Your task to perform on an android device: Go to Google Image 0: 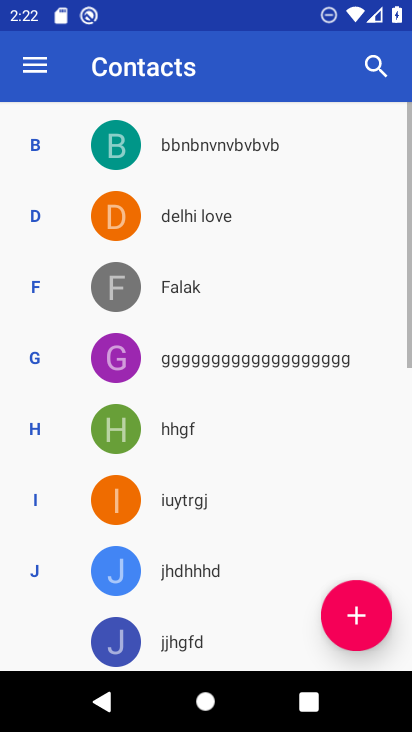
Step 0: press home button
Your task to perform on an android device: Go to Google Image 1: 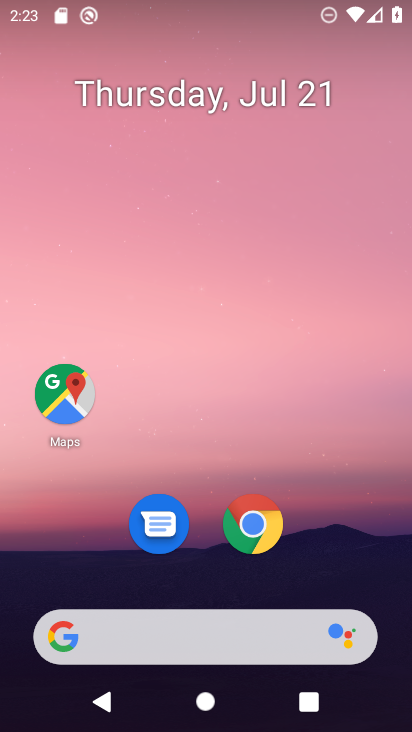
Step 1: drag from (195, 633) to (302, 115)
Your task to perform on an android device: Go to Google Image 2: 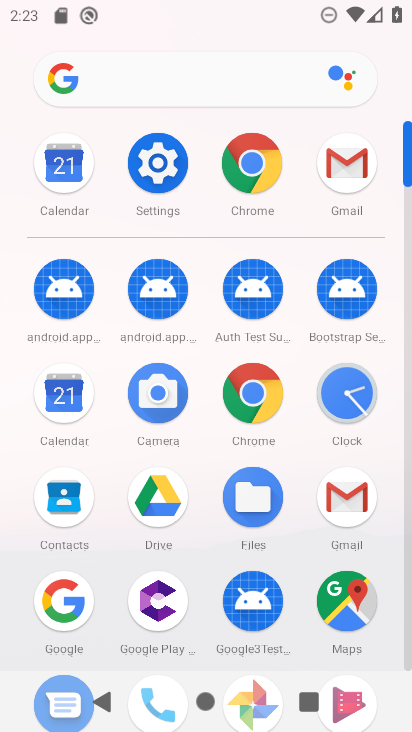
Step 2: click (71, 609)
Your task to perform on an android device: Go to Google Image 3: 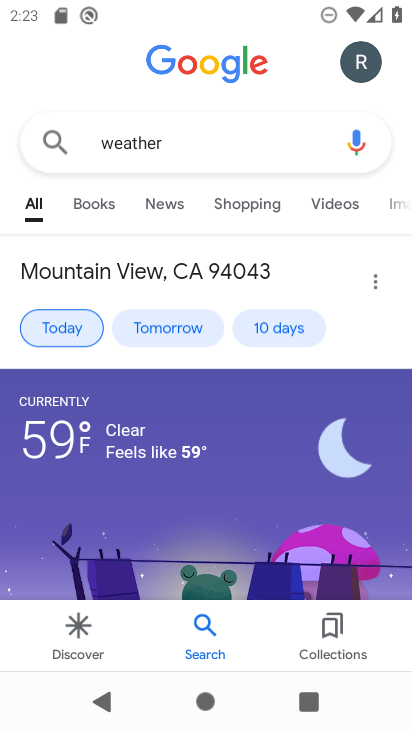
Step 3: task complete